Your task to perform on an android device: Open Google Chrome and open the bookmarks view Image 0: 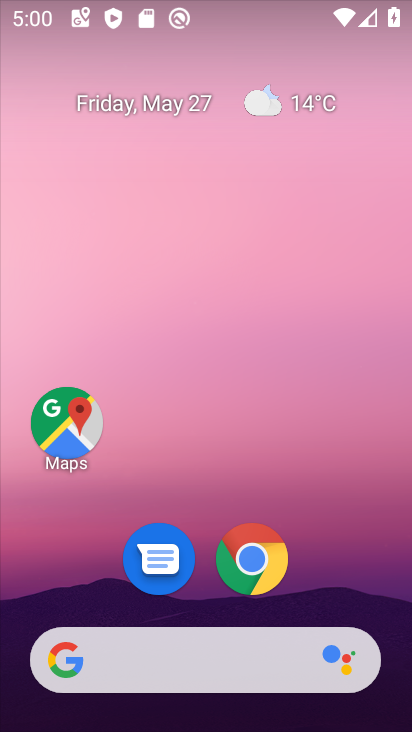
Step 0: click (259, 550)
Your task to perform on an android device: Open Google Chrome and open the bookmarks view Image 1: 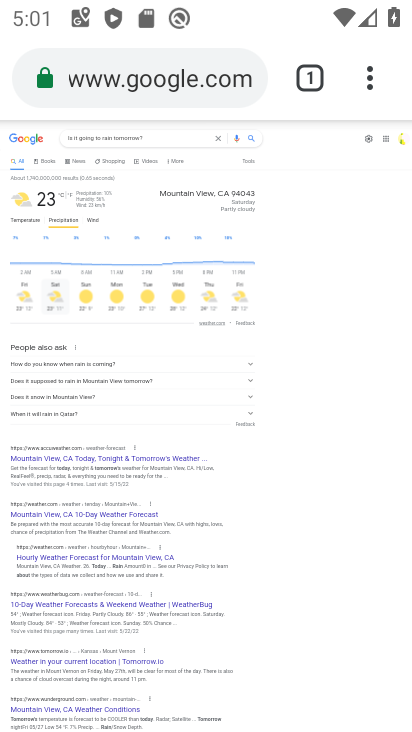
Step 1: task complete